Your task to perform on an android device: Turn off the flashlight Image 0: 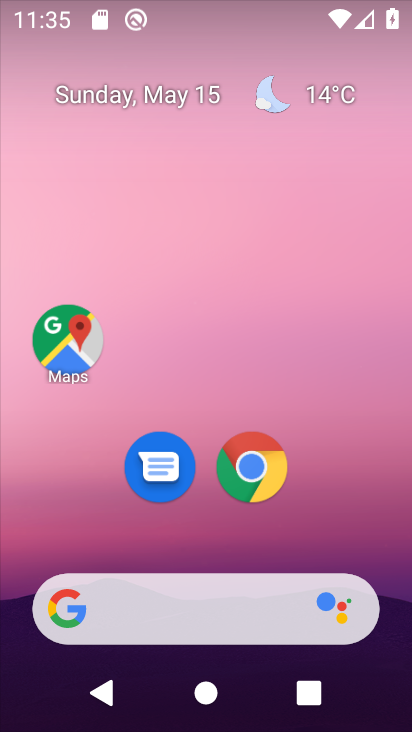
Step 0: drag from (205, 529) to (262, 18)
Your task to perform on an android device: Turn off the flashlight Image 1: 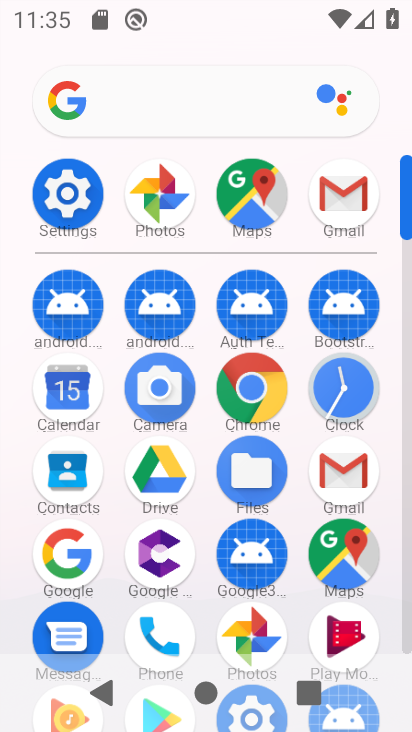
Step 1: click (63, 189)
Your task to perform on an android device: Turn off the flashlight Image 2: 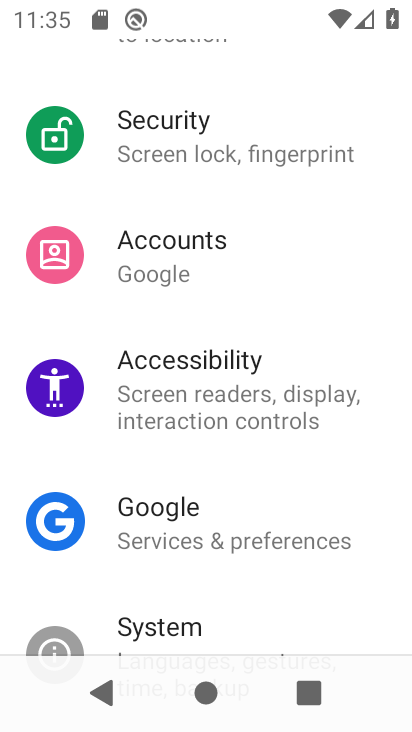
Step 2: drag from (180, 114) to (169, 657)
Your task to perform on an android device: Turn off the flashlight Image 3: 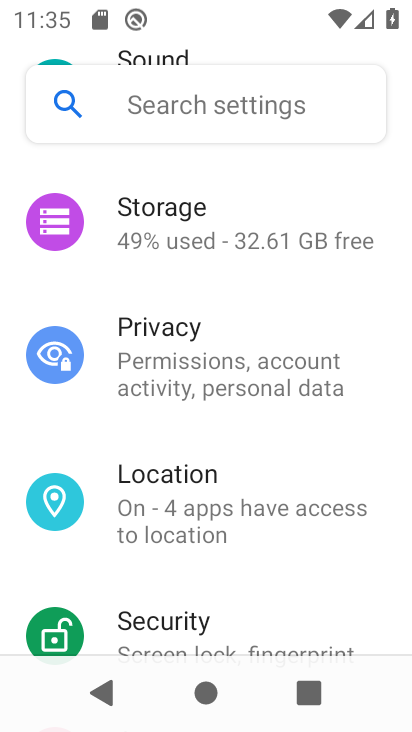
Step 3: click (156, 100)
Your task to perform on an android device: Turn off the flashlight Image 4: 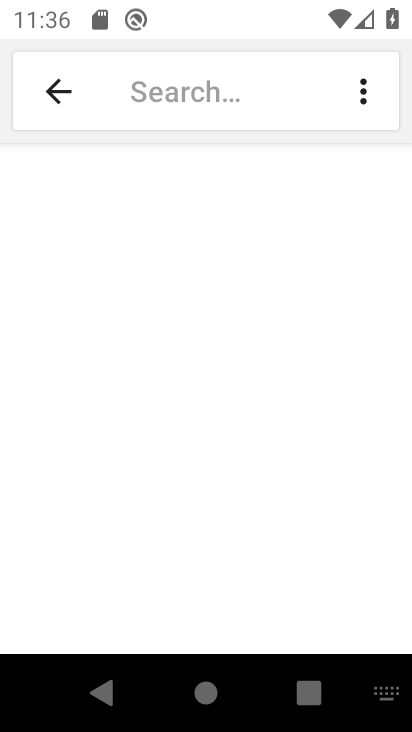
Step 4: type "flashlight"
Your task to perform on an android device: Turn off the flashlight Image 5: 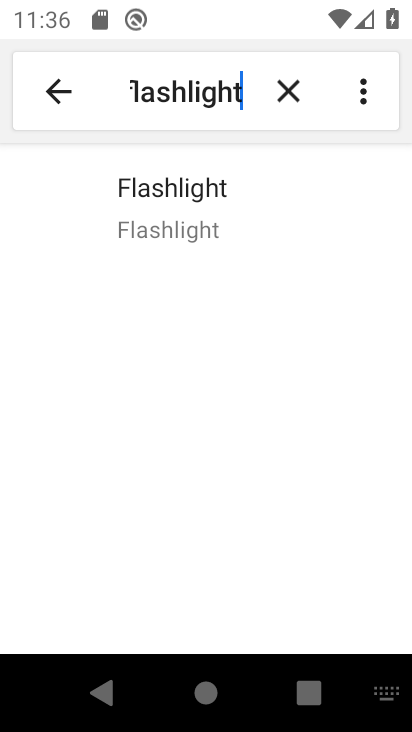
Step 5: click (197, 198)
Your task to perform on an android device: Turn off the flashlight Image 6: 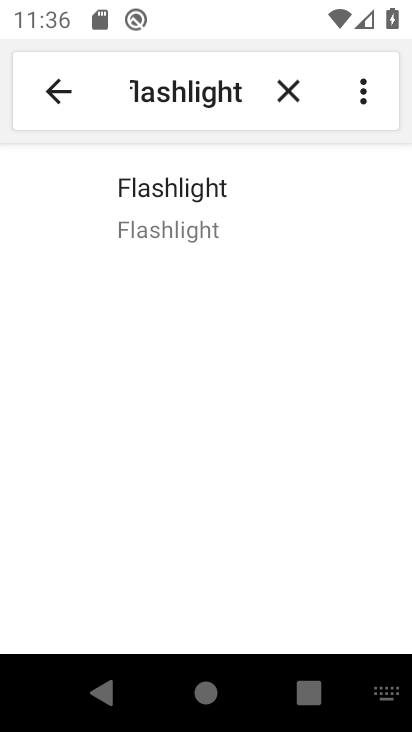
Step 6: click (243, 207)
Your task to perform on an android device: Turn off the flashlight Image 7: 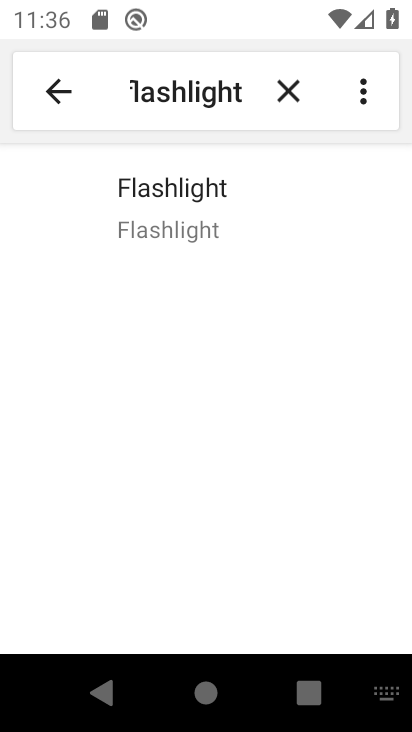
Step 7: task complete